Your task to perform on an android device: Go to Reddit.com Image 0: 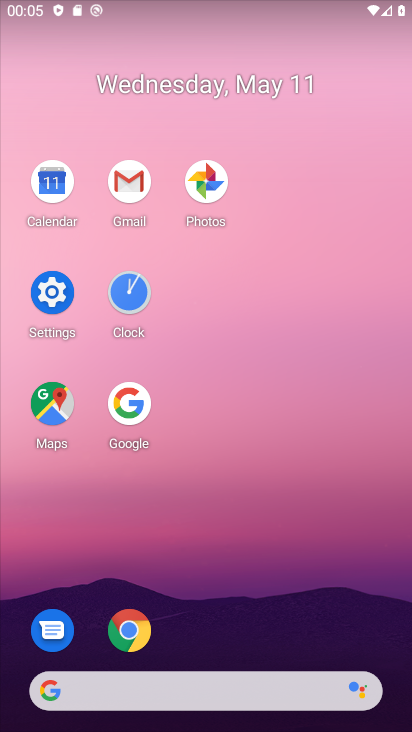
Step 0: click (143, 633)
Your task to perform on an android device: Go to Reddit.com Image 1: 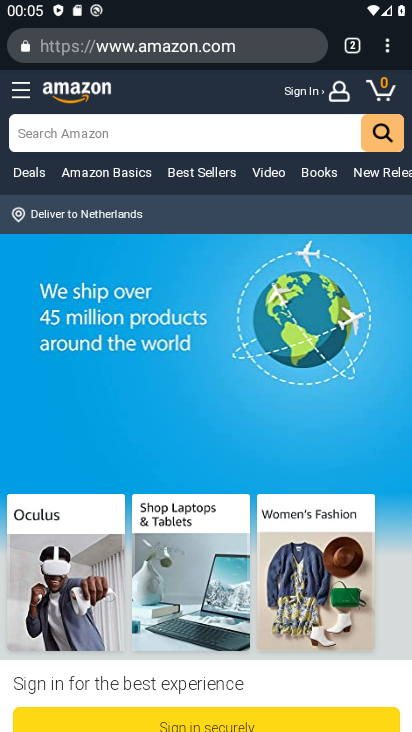
Step 1: click (350, 41)
Your task to perform on an android device: Go to Reddit.com Image 2: 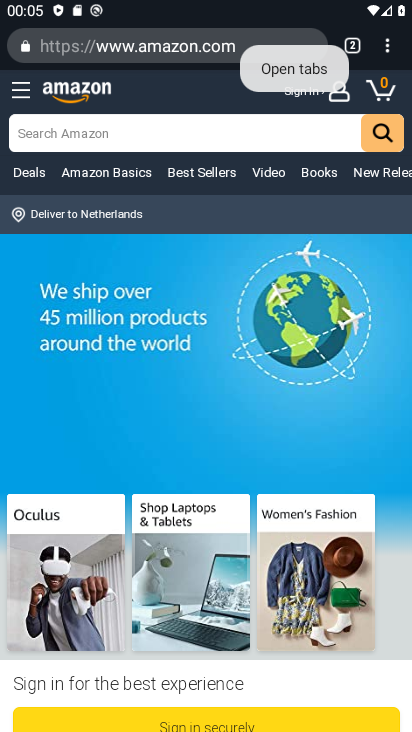
Step 2: click (355, 47)
Your task to perform on an android device: Go to Reddit.com Image 3: 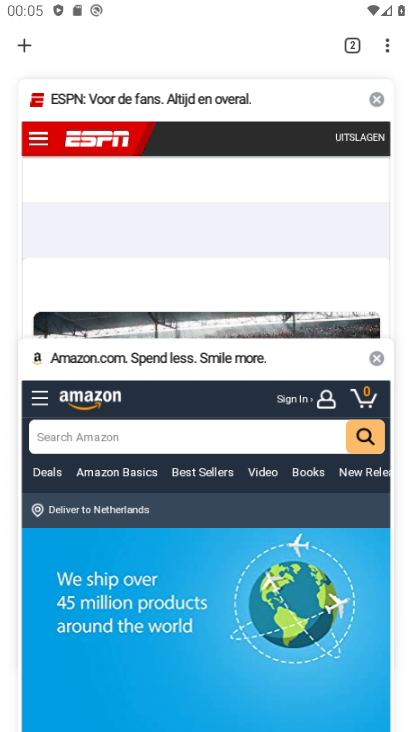
Step 3: click (36, 59)
Your task to perform on an android device: Go to Reddit.com Image 4: 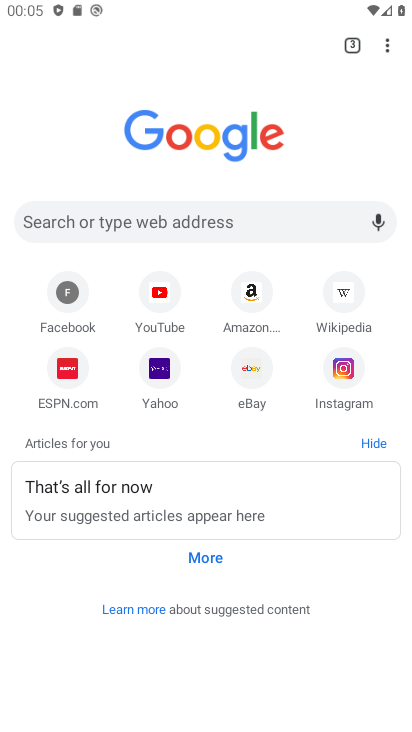
Step 4: click (147, 222)
Your task to perform on an android device: Go to Reddit.com Image 5: 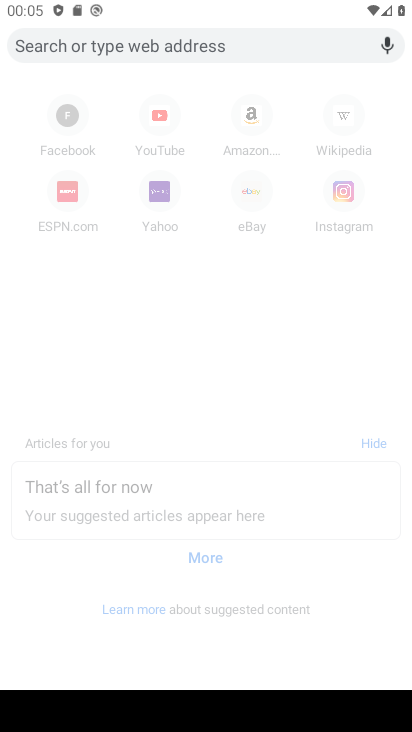
Step 5: type "reddit"
Your task to perform on an android device: Go to Reddit.com Image 6: 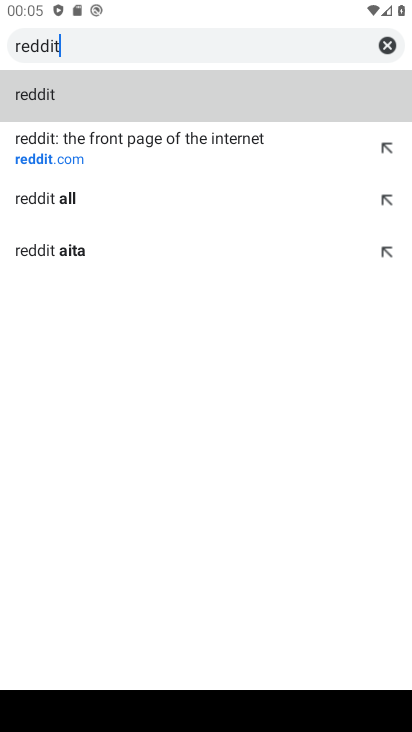
Step 6: click (55, 152)
Your task to perform on an android device: Go to Reddit.com Image 7: 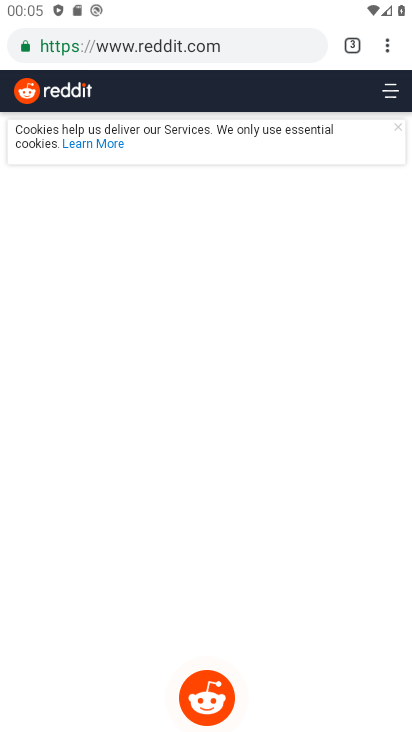
Step 7: task complete